Your task to perform on an android device: uninstall "Microsoft Outlook" Image 0: 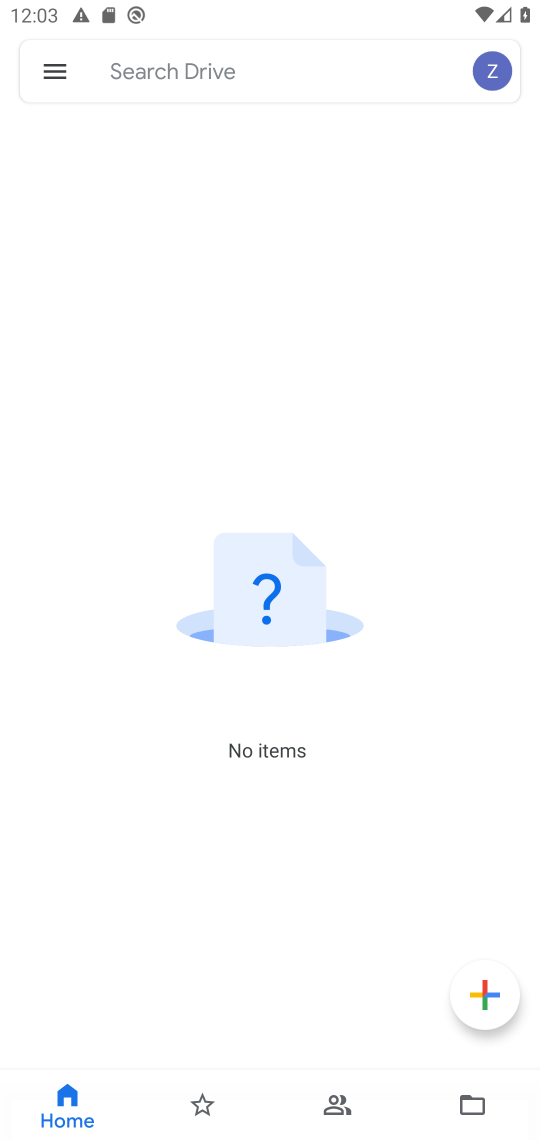
Step 0: press home button
Your task to perform on an android device: uninstall "Microsoft Outlook" Image 1: 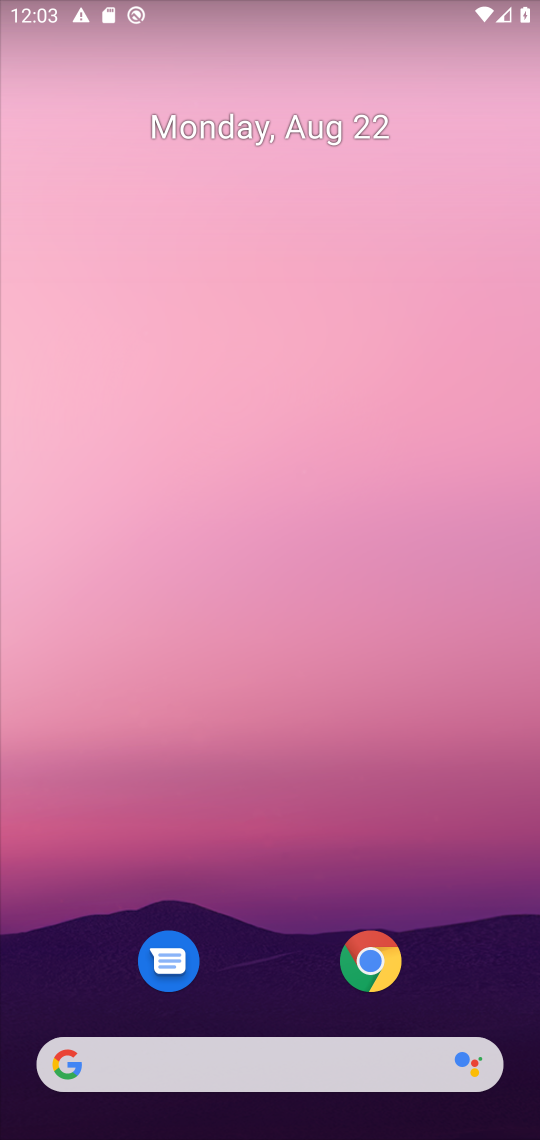
Step 1: drag from (469, 967) to (528, 123)
Your task to perform on an android device: uninstall "Microsoft Outlook" Image 2: 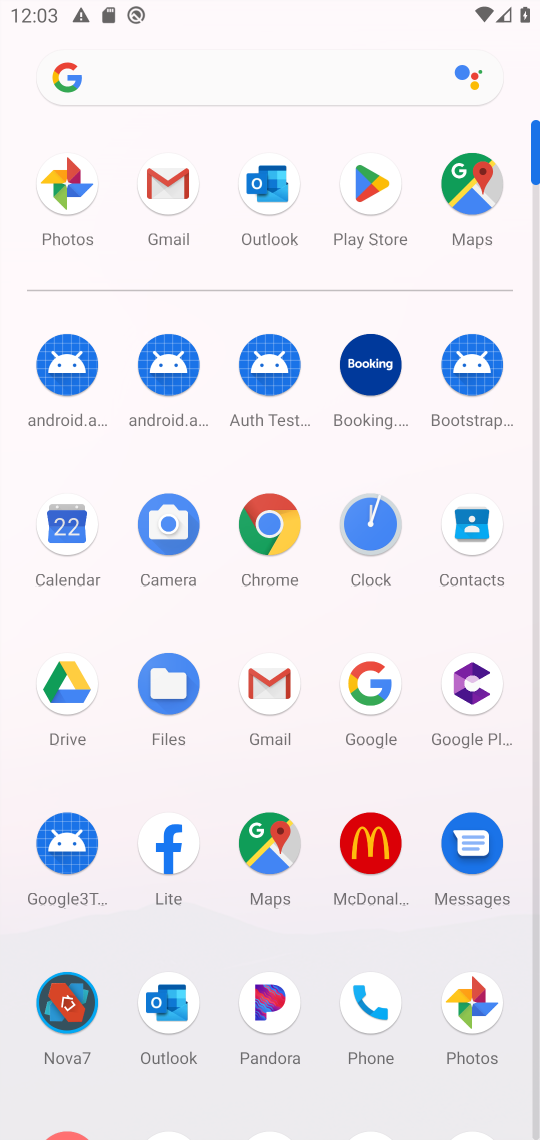
Step 2: click (365, 190)
Your task to perform on an android device: uninstall "Microsoft Outlook" Image 3: 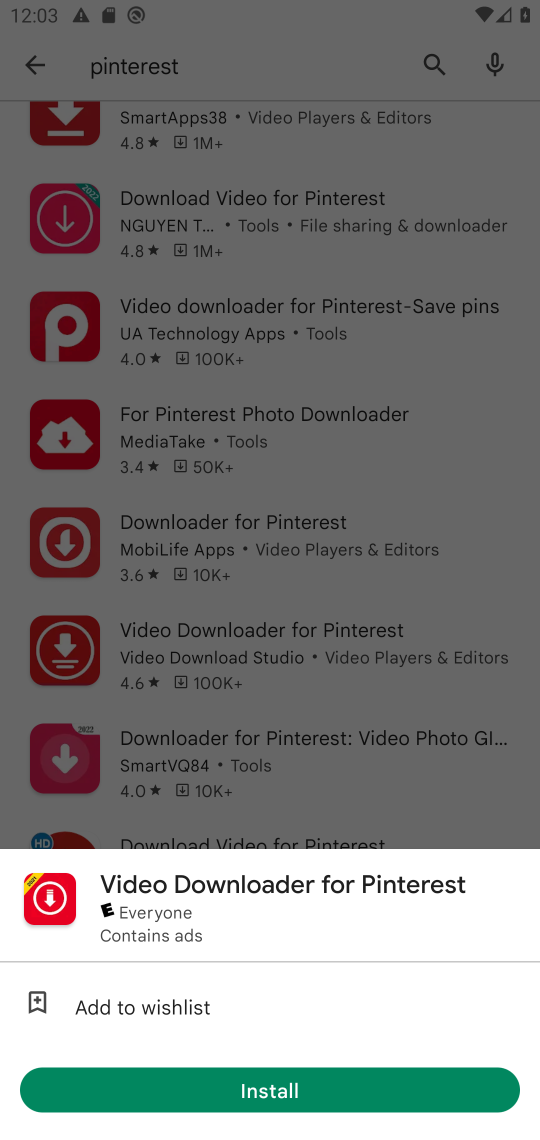
Step 3: press back button
Your task to perform on an android device: uninstall "Microsoft Outlook" Image 4: 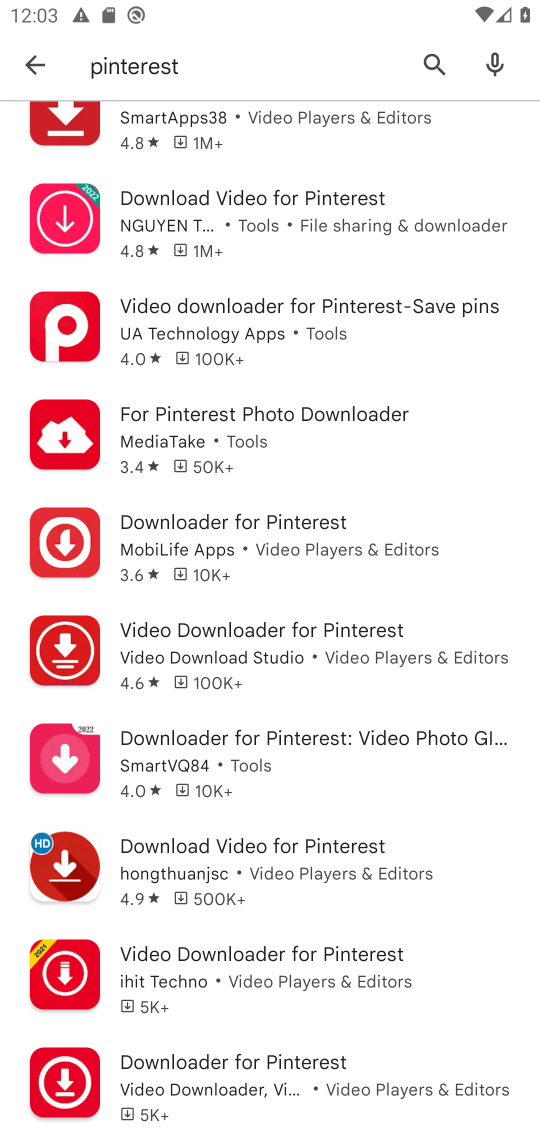
Step 4: press back button
Your task to perform on an android device: uninstall "Microsoft Outlook" Image 5: 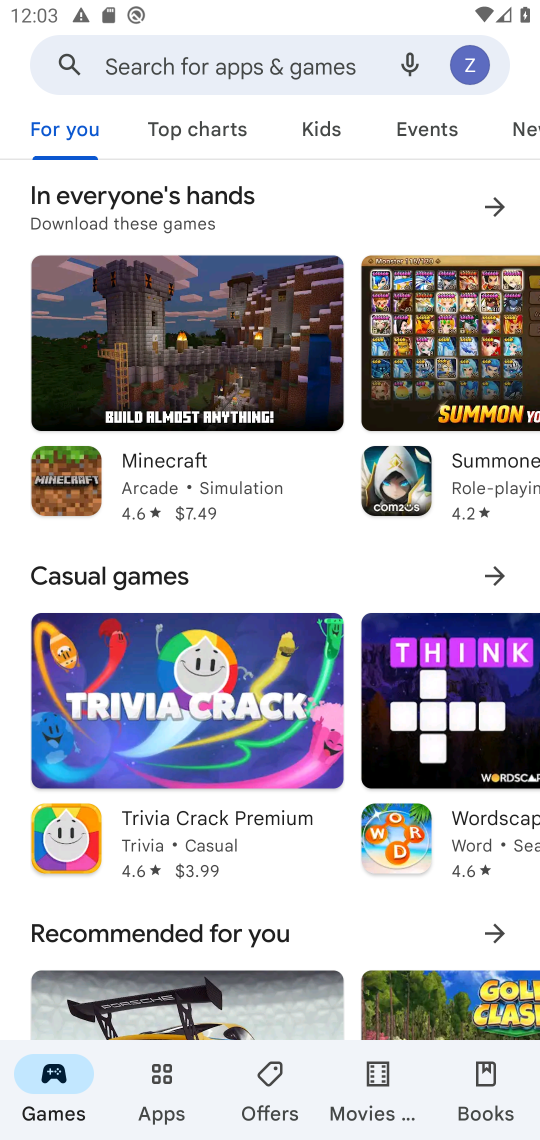
Step 5: click (310, 62)
Your task to perform on an android device: uninstall "Microsoft Outlook" Image 6: 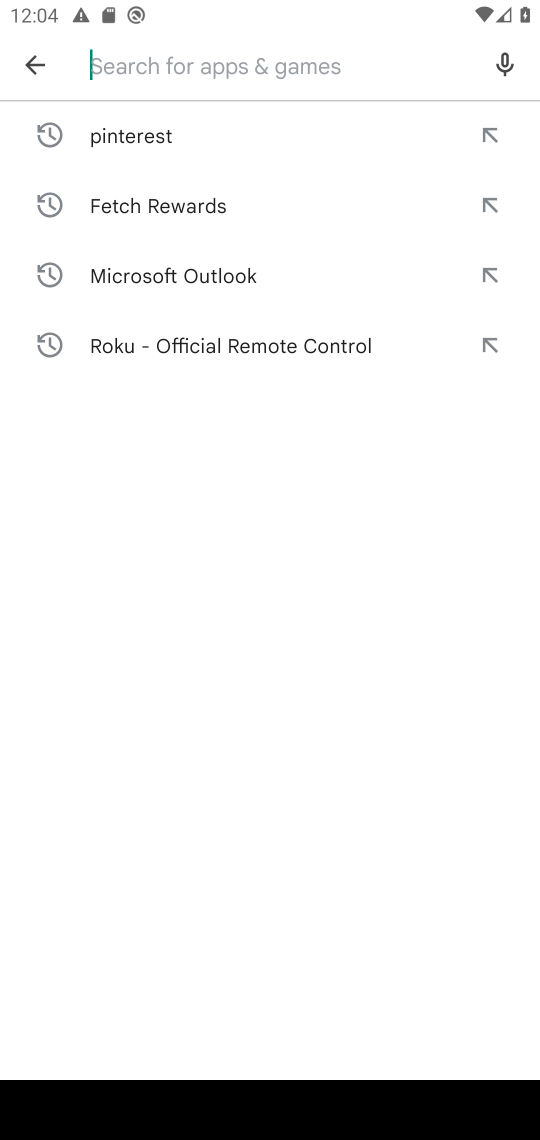
Step 6: type "Microsoft Outlook"
Your task to perform on an android device: uninstall "Microsoft Outlook" Image 7: 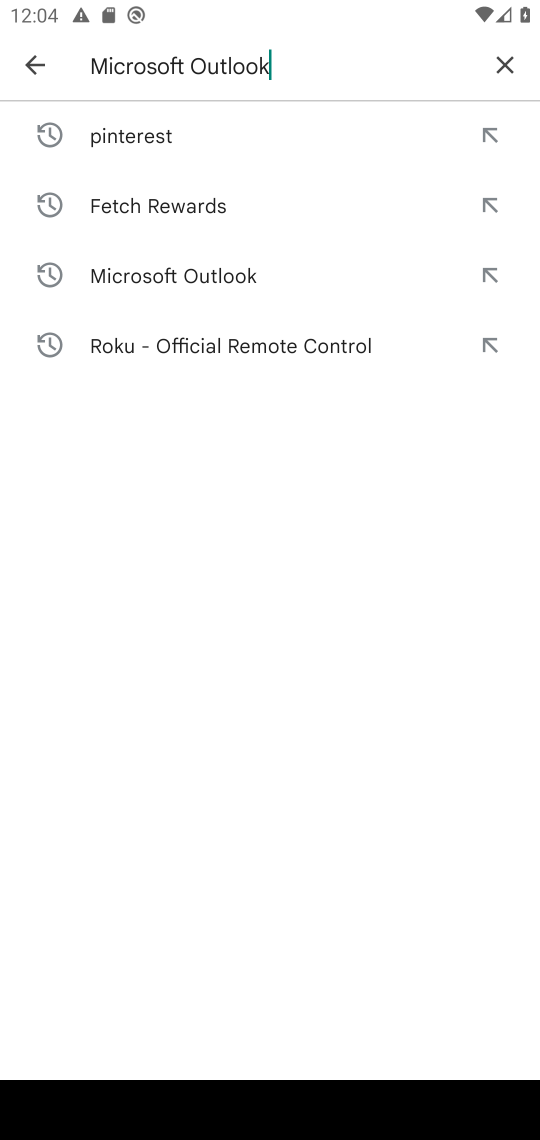
Step 7: press enter
Your task to perform on an android device: uninstall "Microsoft Outlook" Image 8: 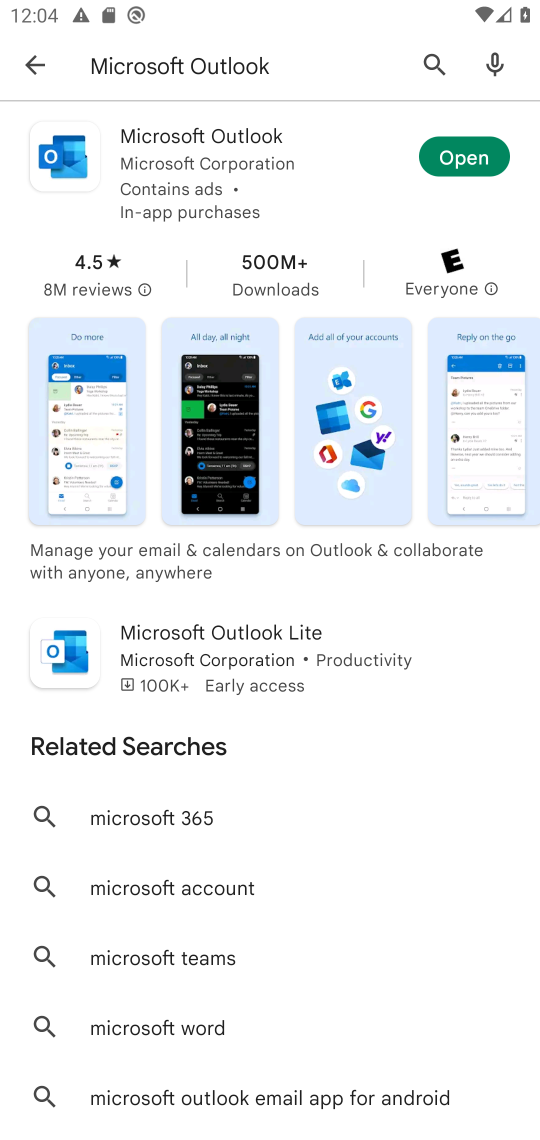
Step 8: task complete